Your task to perform on an android device: Open sound settings Image 0: 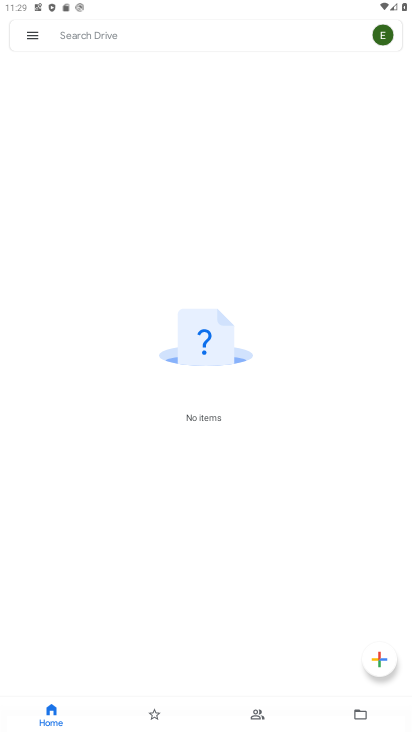
Step 0: press home button
Your task to perform on an android device: Open sound settings Image 1: 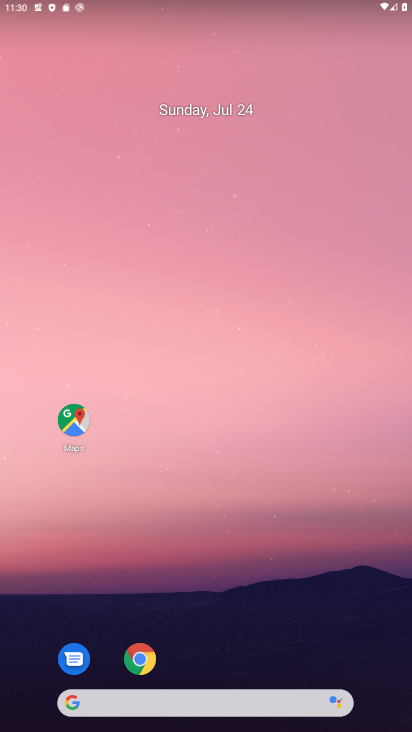
Step 1: drag from (46, 667) to (162, 68)
Your task to perform on an android device: Open sound settings Image 2: 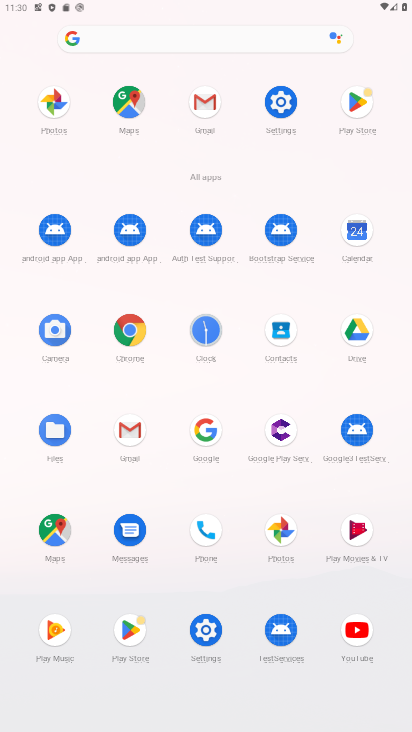
Step 2: click (206, 625)
Your task to perform on an android device: Open sound settings Image 3: 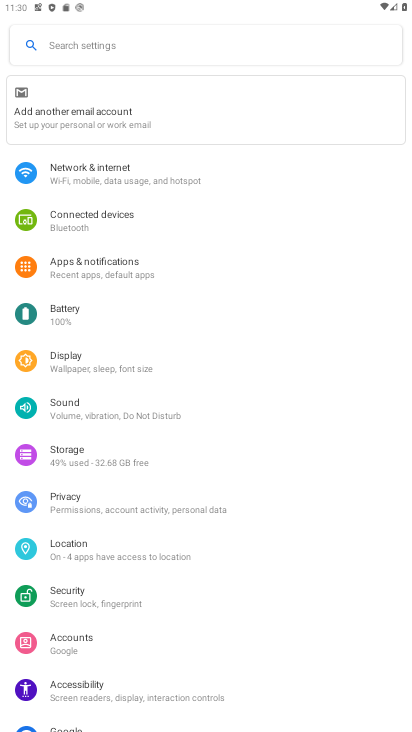
Step 3: click (97, 403)
Your task to perform on an android device: Open sound settings Image 4: 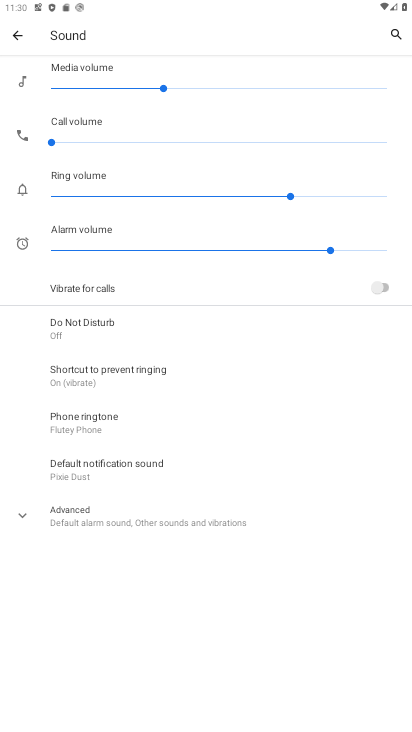
Step 4: task complete